Your task to perform on an android device: change text size in settings app Image 0: 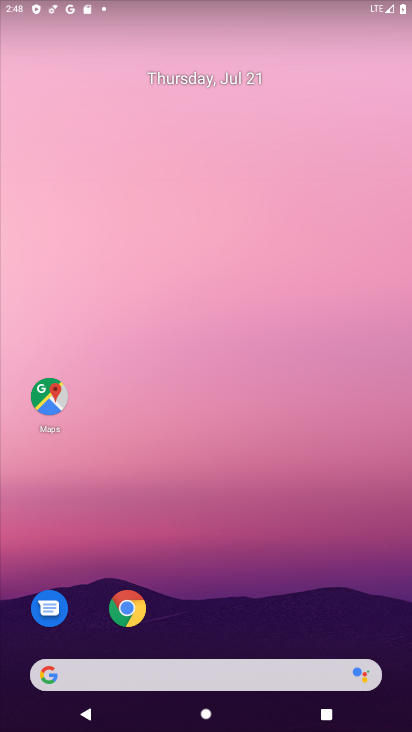
Step 0: drag from (202, 649) to (40, 500)
Your task to perform on an android device: change text size in settings app Image 1: 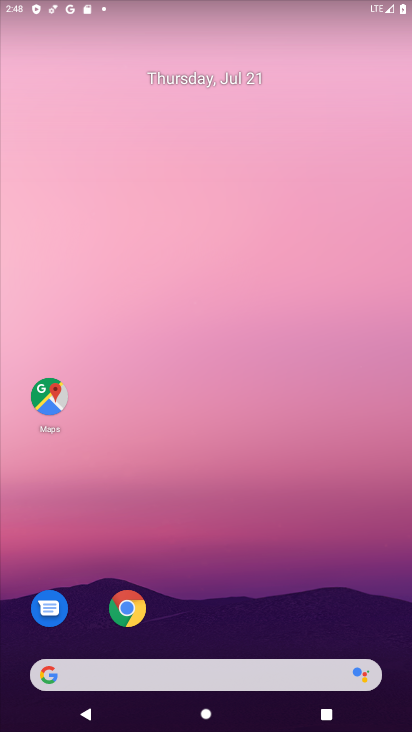
Step 1: click (200, 676)
Your task to perform on an android device: change text size in settings app Image 2: 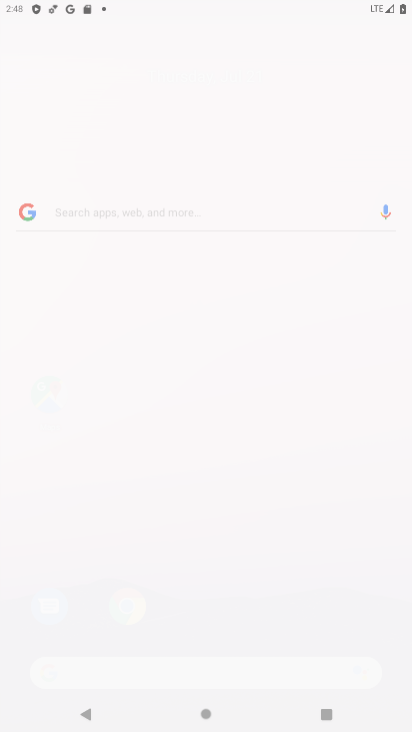
Step 2: drag from (237, 620) to (319, 11)
Your task to perform on an android device: change text size in settings app Image 3: 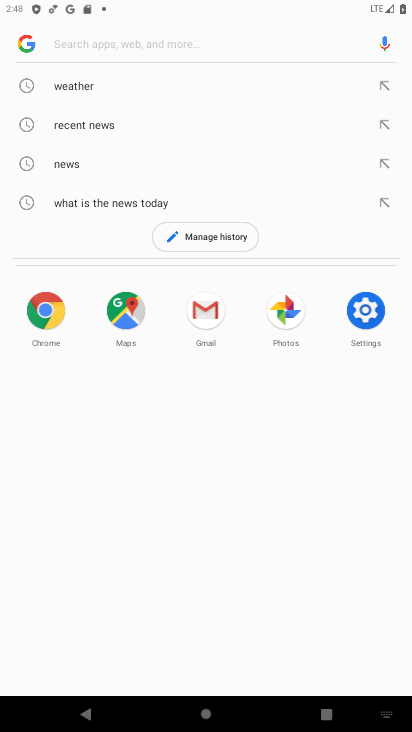
Step 3: press home button
Your task to perform on an android device: change text size in settings app Image 4: 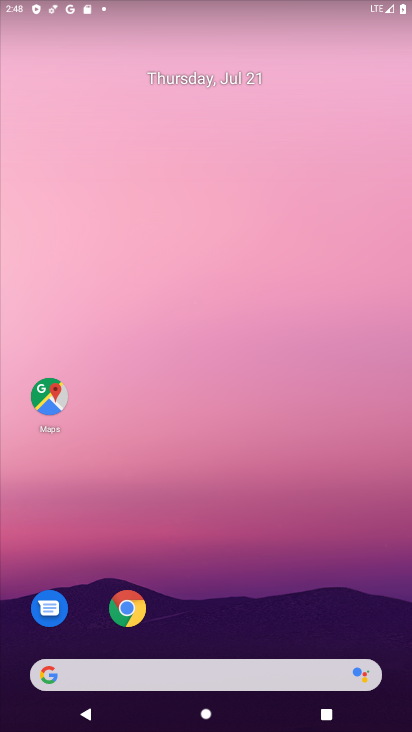
Step 4: drag from (232, 659) to (171, 36)
Your task to perform on an android device: change text size in settings app Image 5: 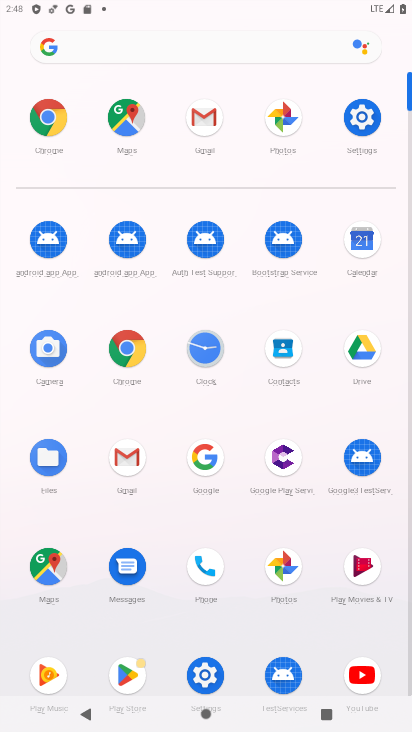
Step 5: click (357, 114)
Your task to perform on an android device: change text size in settings app Image 6: 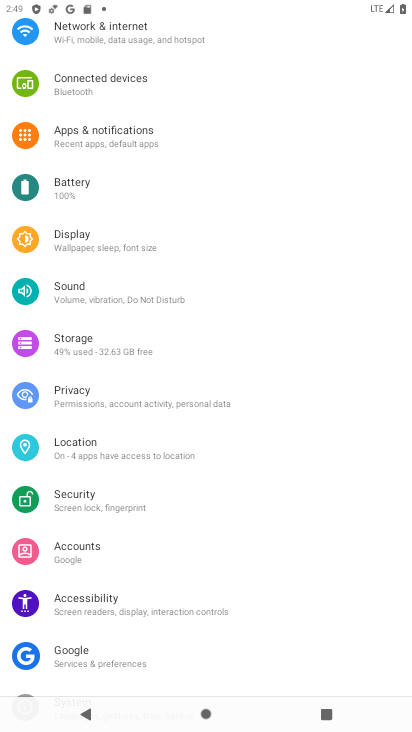
Step 6: click (71, 246)
Your task to perform on an android device: change text size in settings app Image 7: 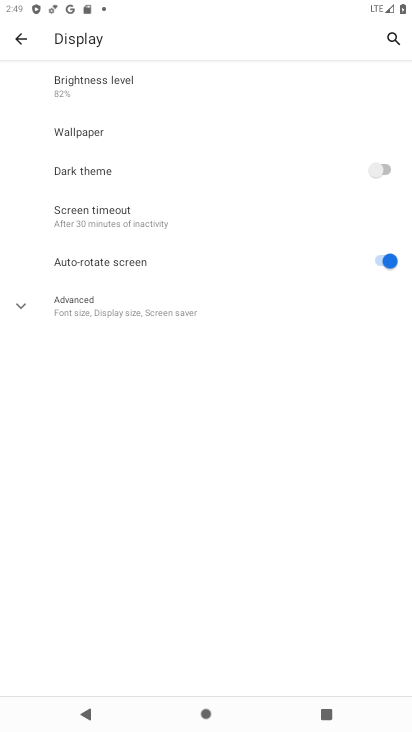
Step 7: click (104, 318)
Your task to perform on an android device: change text size in settings app Image 8: 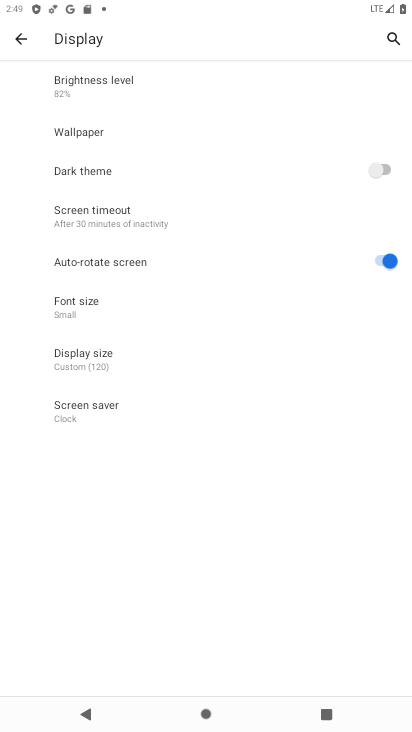
Step 8: click (81, 315)
Your task to perform on an android device: change text size in settings app Image 9: 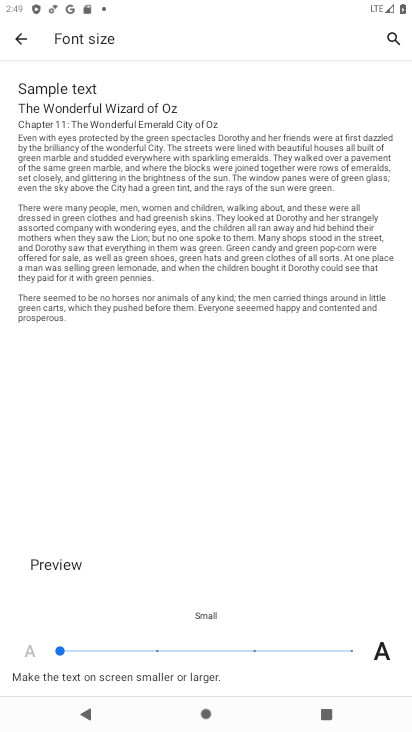
Step 9: click (155, 655)
Your task to perform on an android device: change text size in settings app Image 10: 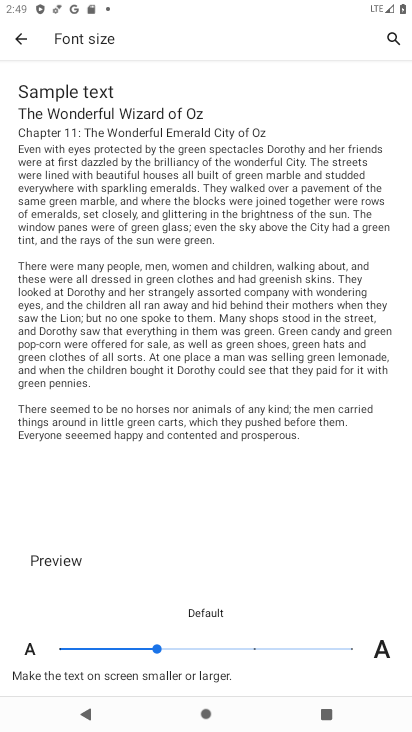
Step 10: task complete